Your task to perform on an android device: Play the last video I watched on Youtube Image 0: 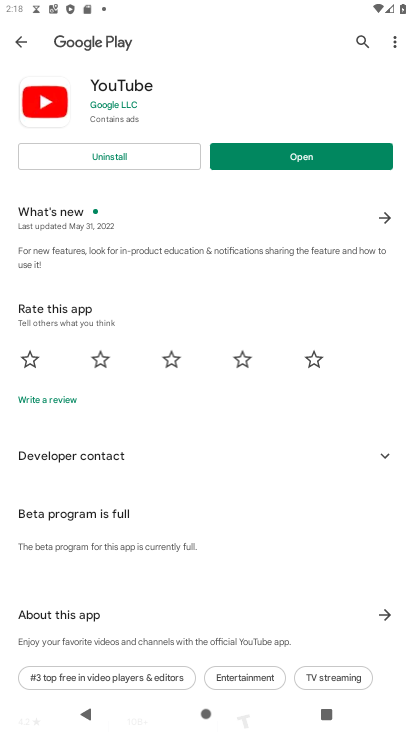
Step 0: click (290, 155)
Your task to perform on an android device: Play the last video I watched on Youtube Image 1: 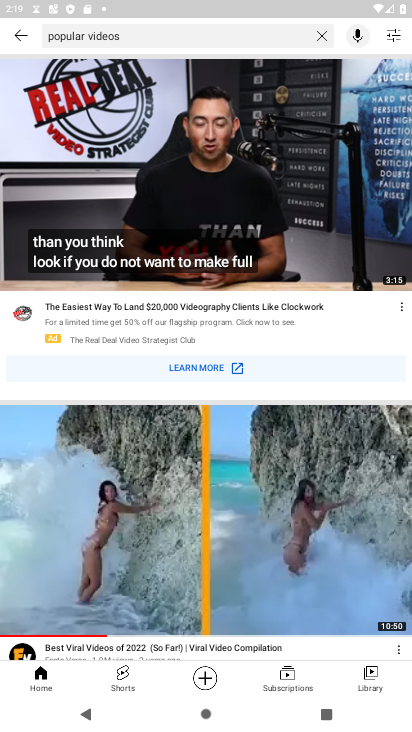
Step 1: click (19, 33)
Your task to perform on an android device: Play the last video I watched on Youtube Image 2: 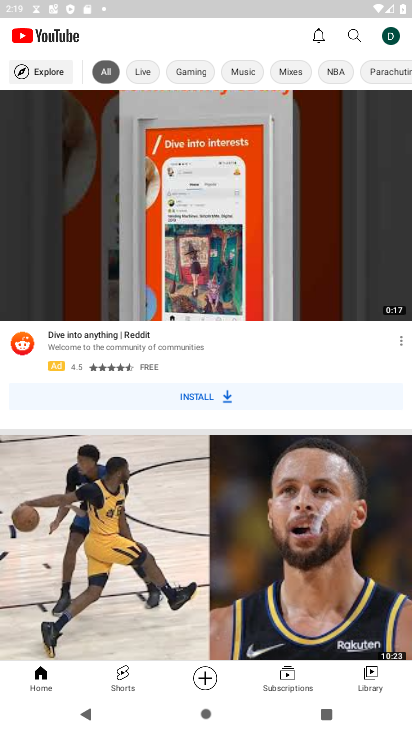
Step 2: click (396, 39)
Your task to perform on an android device: Play the last video I watched on Youtube Image 3: 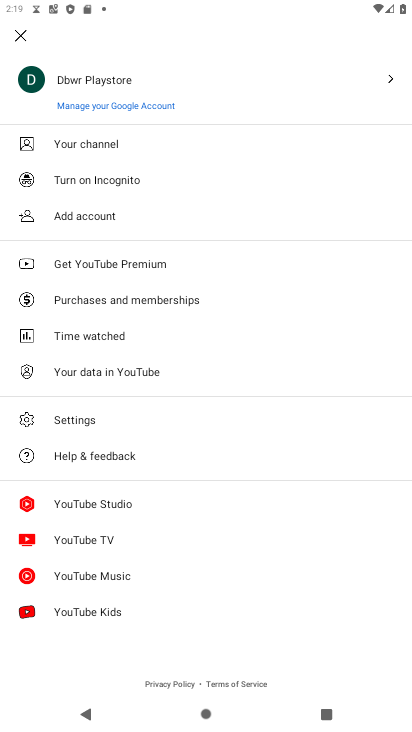
Step 3: click (73, 144)
Your task to perform on an android device: Play the last video I watched on Youtube Image 4: 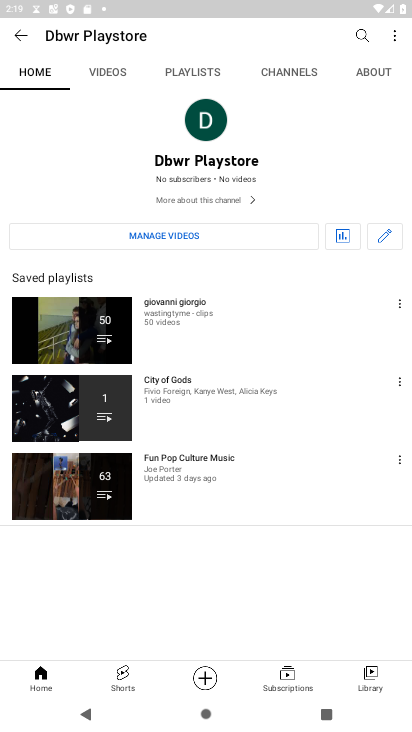
Step 4: task complete